Your task to perform on an android device: What's the weather today? Image 0: 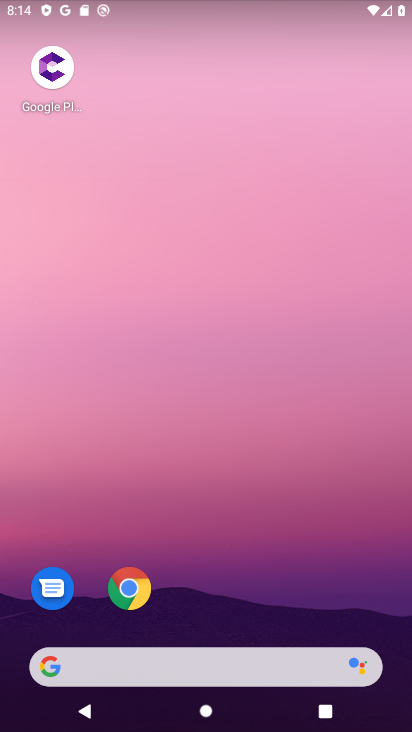
Step 0: press home button
Your task to perform on an android device: What's the weather today? Image 1: 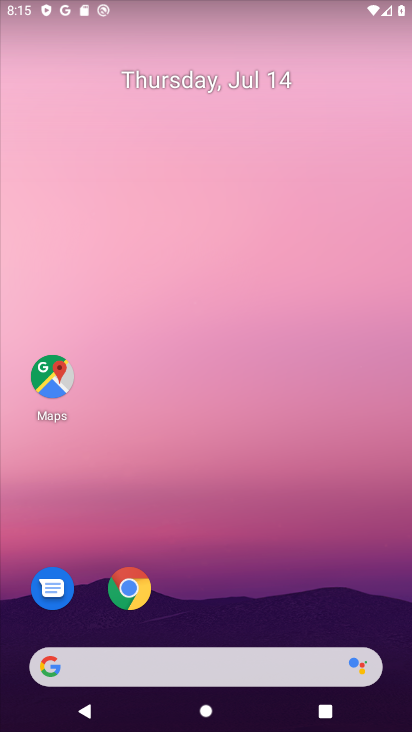
Step 1: drag from (251, 623) to (203, 129)
Your task to perform on an android device: What's the weather today? Image 2: 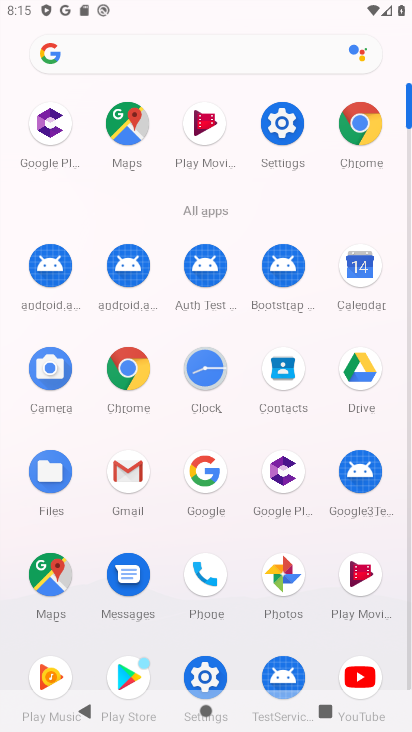
Step 2: click (375, 135)
Your task to perform on an android device: What's the weather today? Image 3: 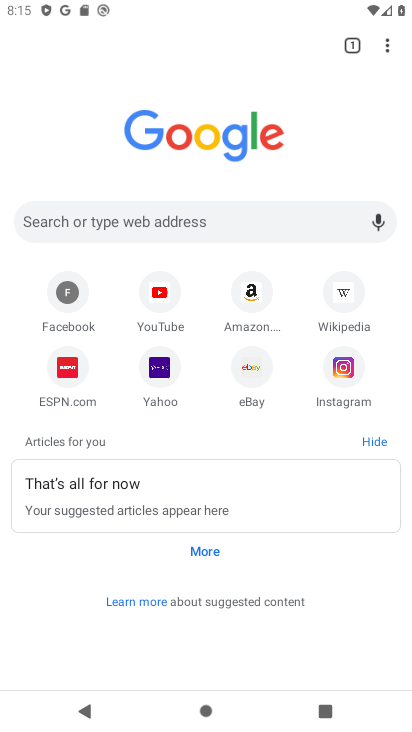
Step 3: click (247, 220)
Your task to perform on an android device: What's the weather today? Image 4: 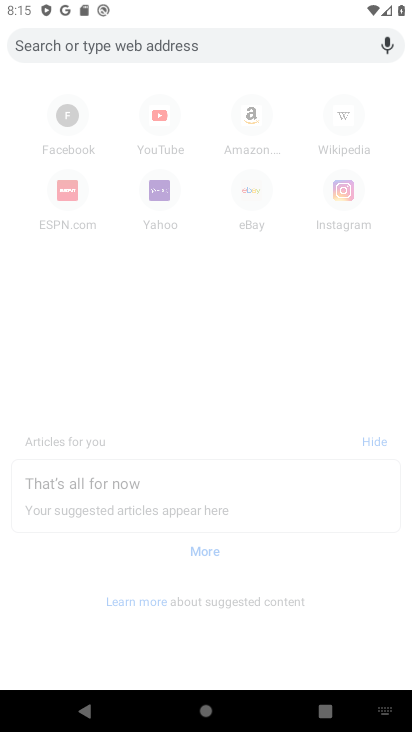
Step 4: click (211, 49)
Your task to perform on an android device: What's the weather today? Image 5: 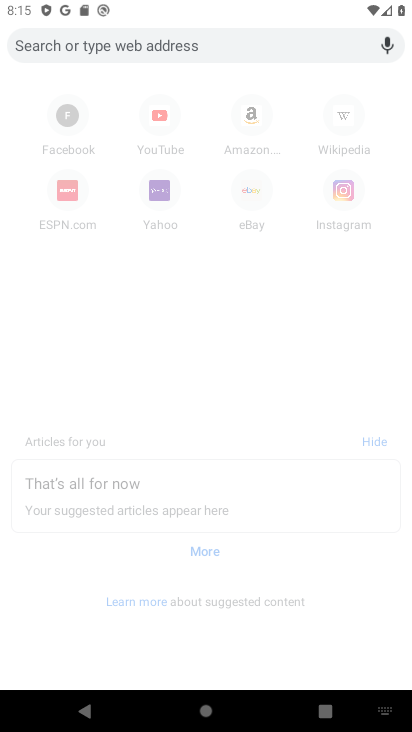
Step 5: type "What's the weather today?"
Your task to perform on an android device: What's the weather today? Image 6: 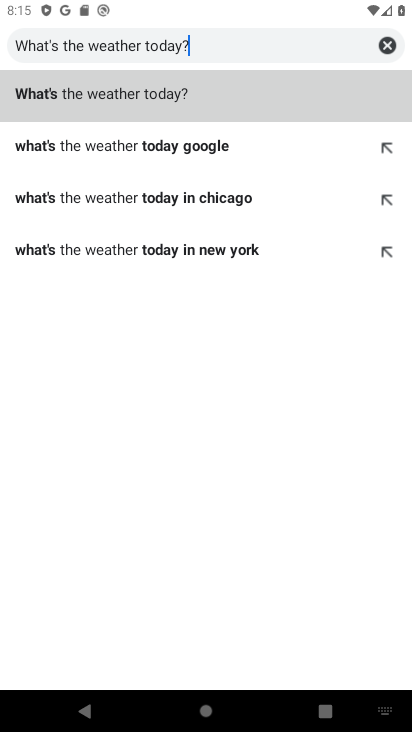
Step 6: click (181, 88)
Your task to perform on an android device: What's the weather today? Image 7: 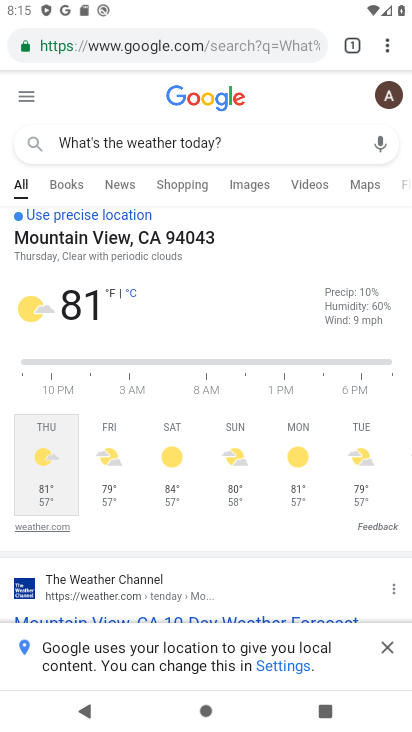
Step 7: task complete